Your task to perform on an android device: empty trash in the gmail app Image 0: 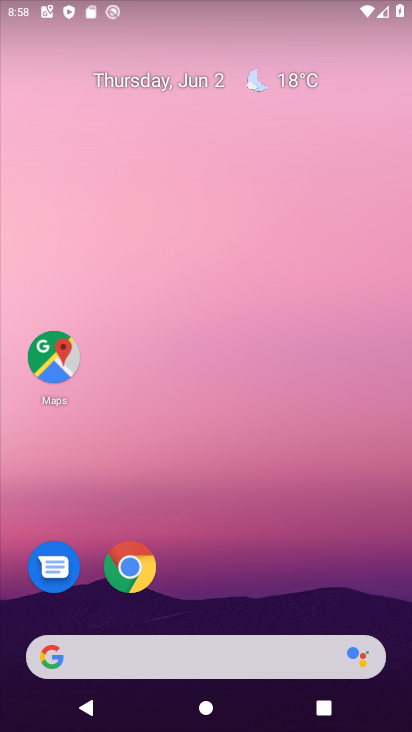
Step 0: press home button
Your task to perform on an android device: empty trash in the gmail app Image 1: 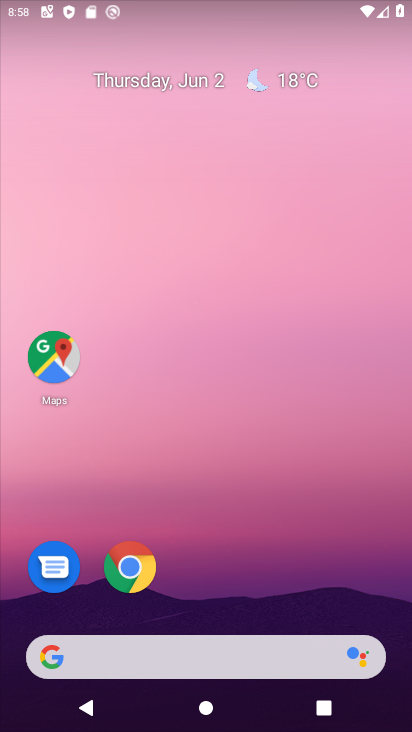
Step 1: drag from (213, 449) to (216, 5)
Your task to perform on an android device: empty trash in the gmail app Image 2: 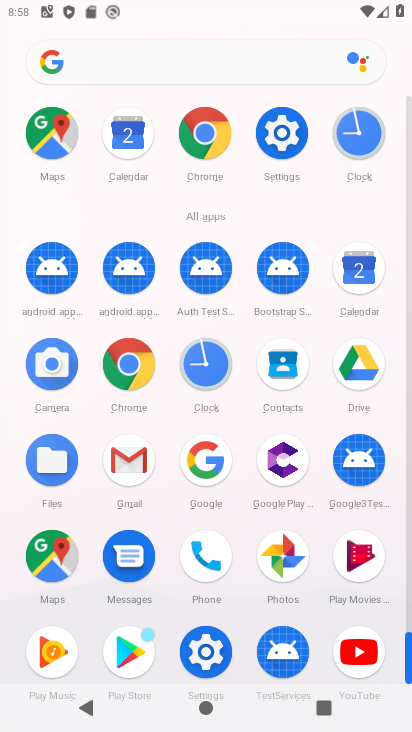
Step 2: click (131, 455)
Your task to perform on an android device: empty trash in the gmail app Image 3: 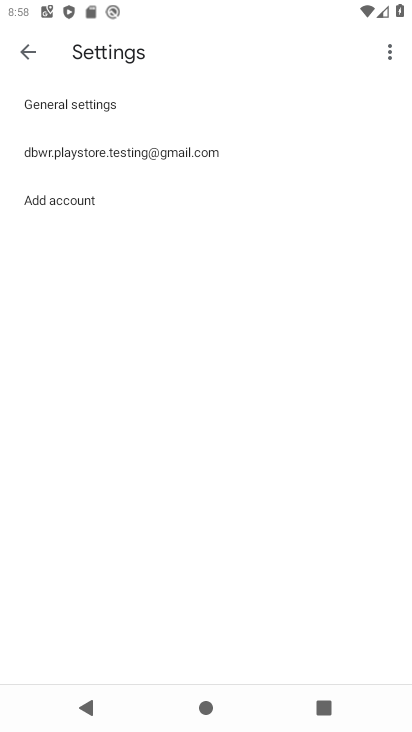
Step 3: click (30, 50)
Your task to perform on an android device: empty trash in the gmail app Image 4: 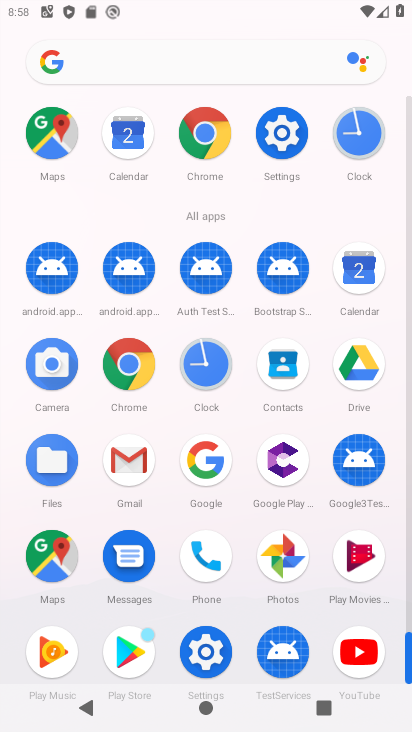
Step 4: click (131, 457)
Your task to perform on an android device: empty trash in the gmail app Image 5: 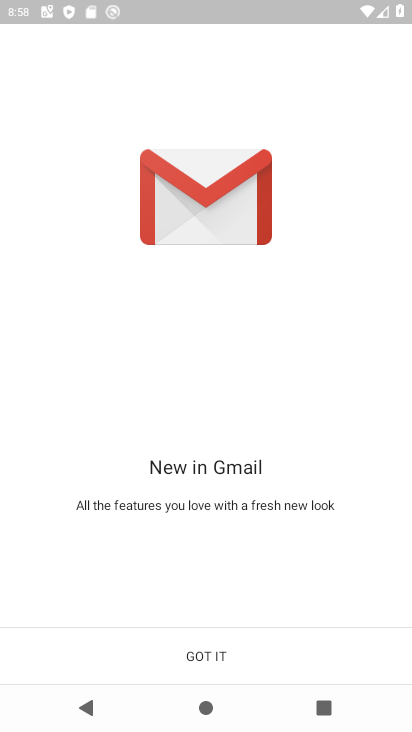
Step 5: click (223, 645)
Your task to perform on an android device: empty trash in the gmail app Image 6: 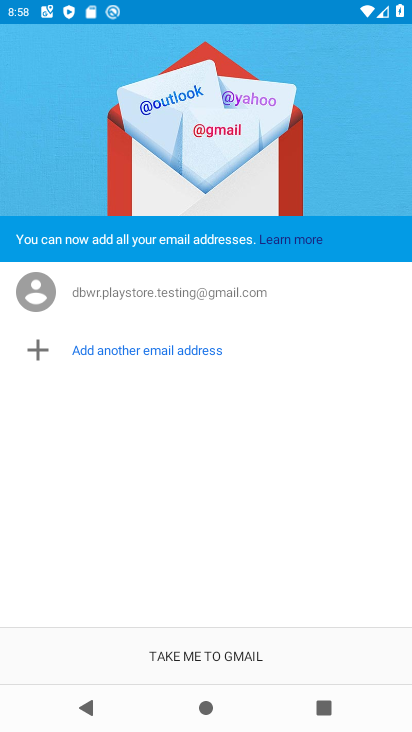
Step 6: click (223, 645)
Your task to perform on an android device: empty trash in the gmail app Image 7: 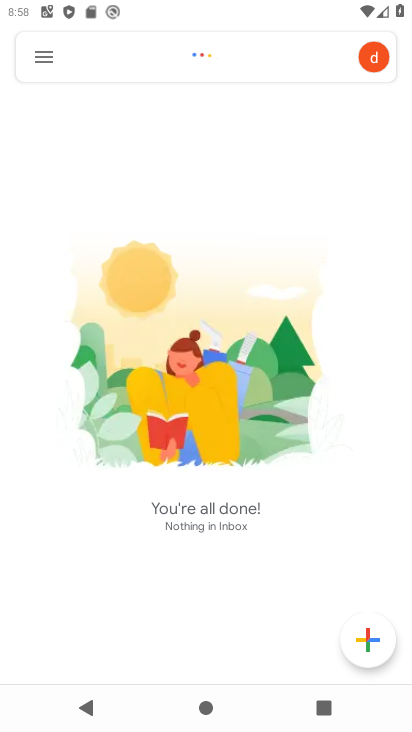
Step 7: click (40, 49)
Your task to perform on an android device: empty trash in the gmail app Image 8: 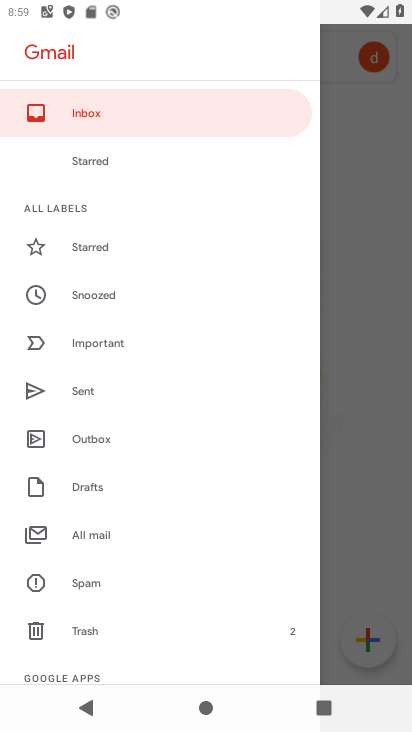
Step 8: click (108, 628)
Your task to perform on an android device: empty trash in the gmail app Image 9: 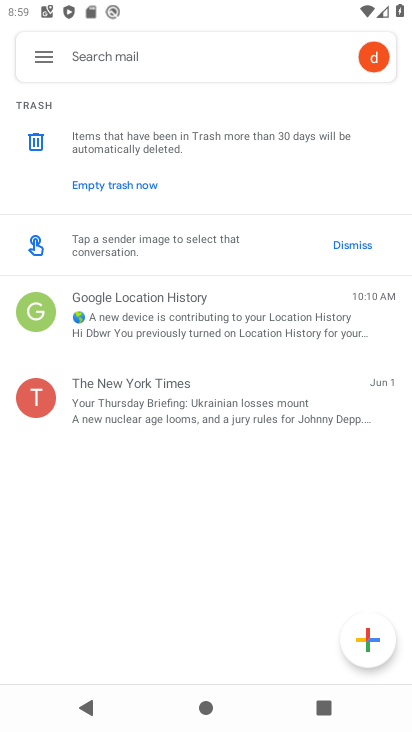
Step 9: click (105, 181)
Your task to perform on an android device: empty trash in the gmail app Image 10: 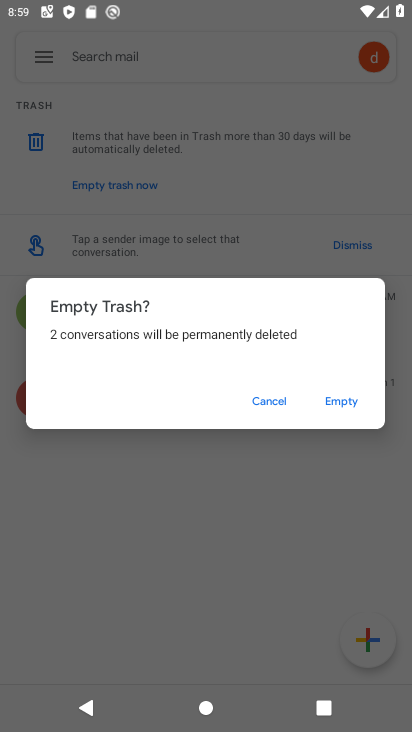
Step 10: click (344, 399)
Your task to perform on an android device: empty trash in the gmail app Image 11: 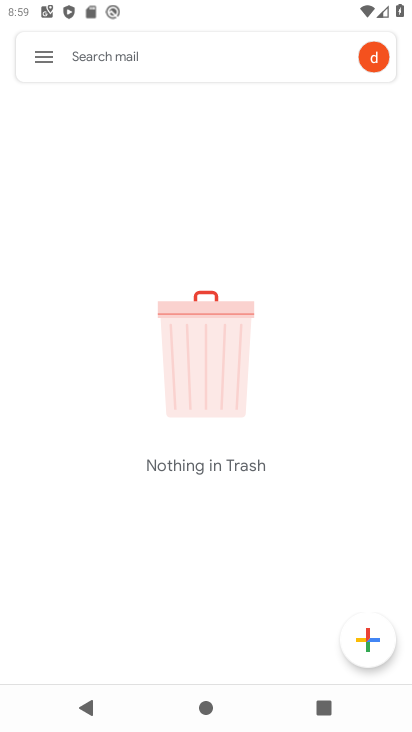
Step 11: task complete